Your task to perform on an android device: Do I have any events today? Image 0: 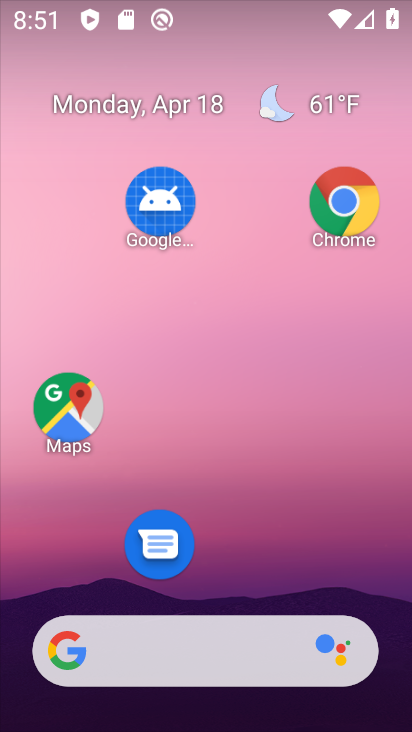
Step 0: drag from (198, 378) to (195, 71)
Your task to perform on an android device: Do I have any events today? Image 1: 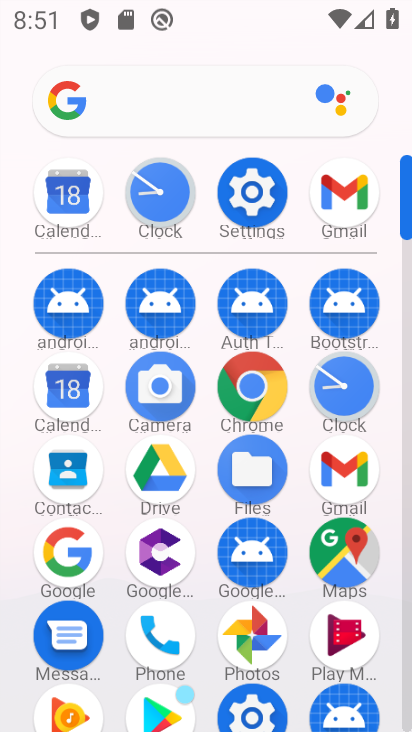
Step 1: click (75, 392)
Your task to perform on an android device: Do I have any events today? Image 2: 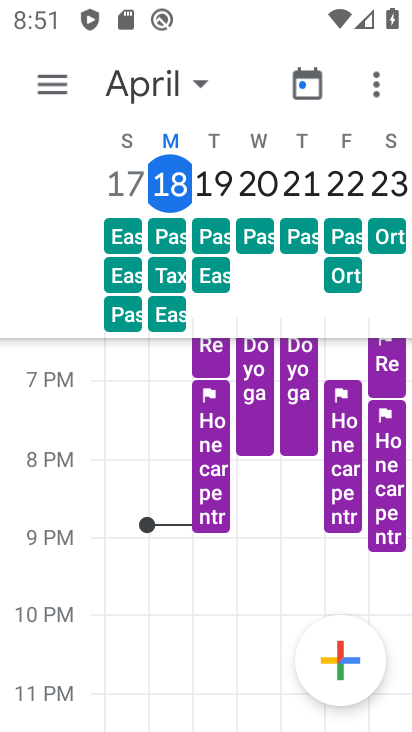
Step 2: click (166, 177)
Your task to perform on an android device: Do I have any events today? Image 3: 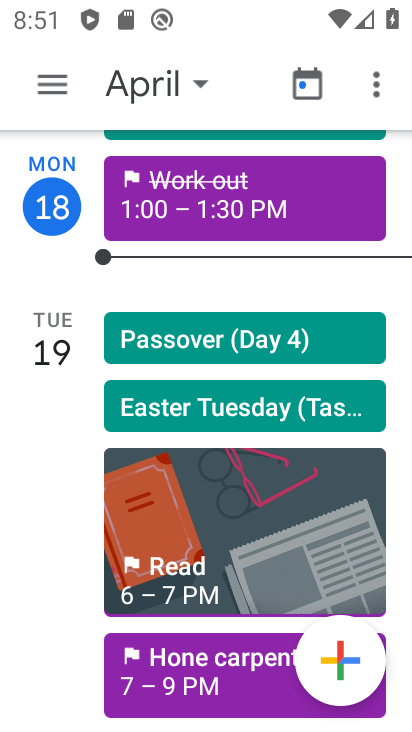
Step 3: task complete